Your task to perform on an android device: Go to settings Image 0: 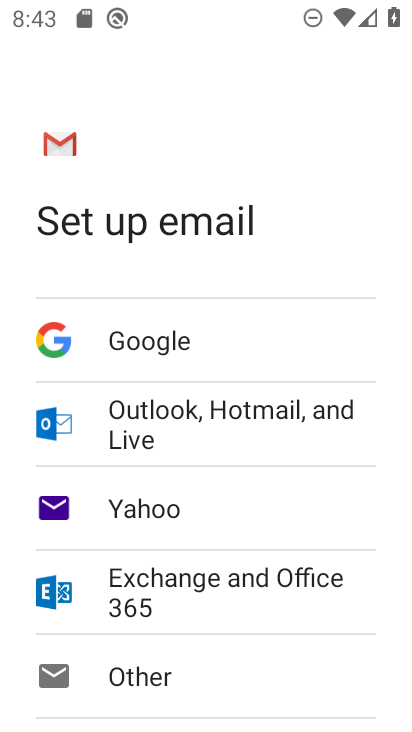
Step 0: press home button
Your task to perform on an android device: Go to settings Image 1: 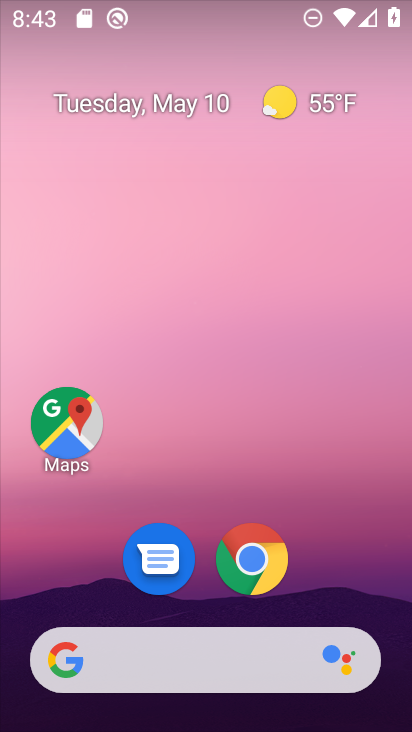
Step 1: drag from (215, 723) to (212, 182)
Your task to perform on an android device: Go to settings Image 2: 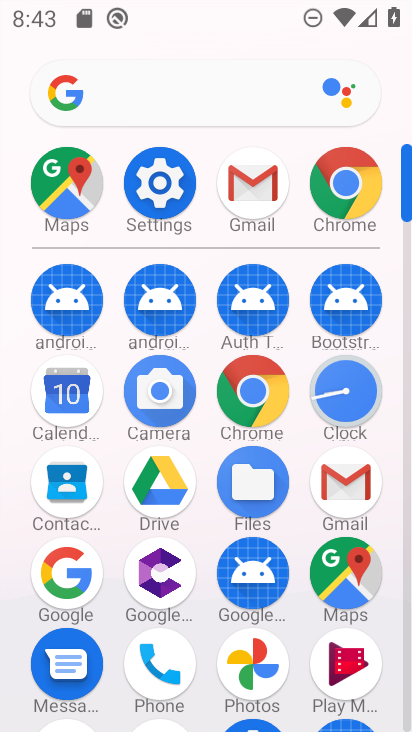
Step 2: click (158, 187)
Your task to perform on an android device: Go to settings Image 3: 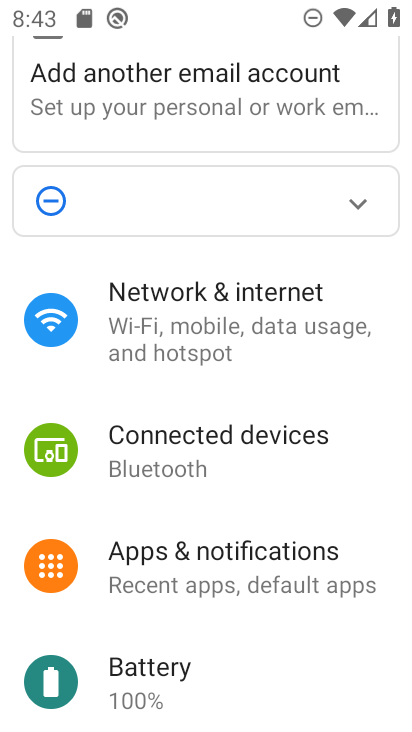
Step 3: task complete